Your task to perform on an android device: Open battery settings Image 0: 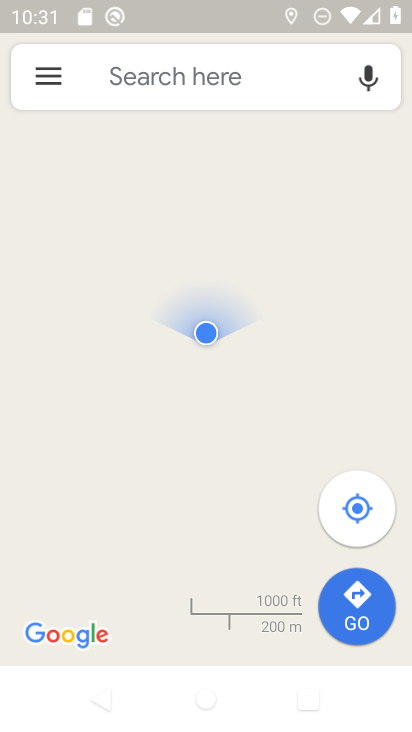
Step 0: press home button
Your task to perform on an android device: Open battery settings Image 1: 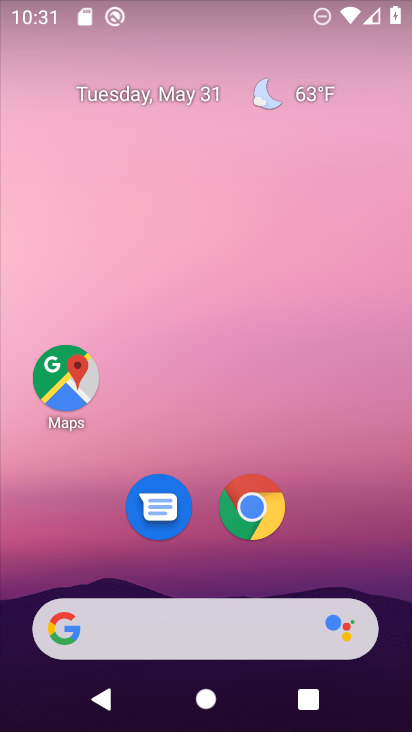
Step 1: drag from (68, 635) to (212, 45)
Your task to perform on an android device: Open battery settings Image 2: 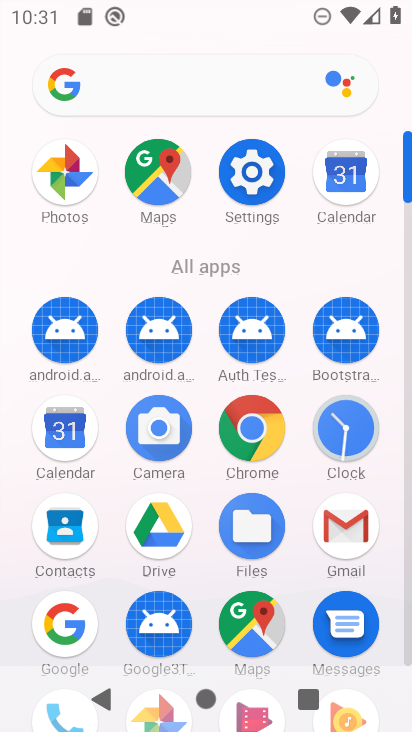
Step 2: drag from (123, 579) to (239, 255)
Your task to perform on an android device: Open battery settings Image 3: 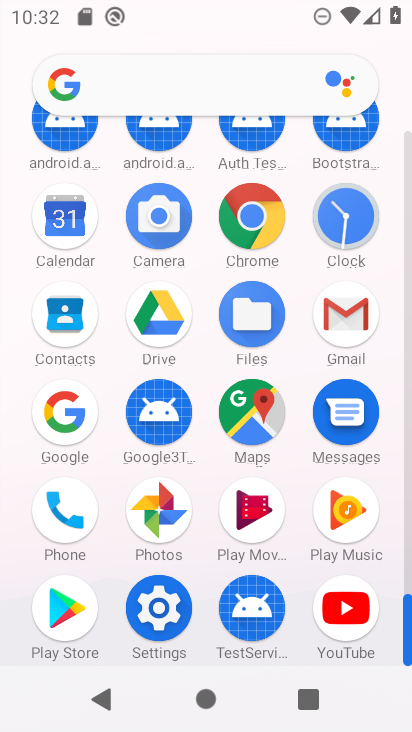
Step 3: click (155, 619)
Your task to perform on an android device: Open battery settings Image 4: 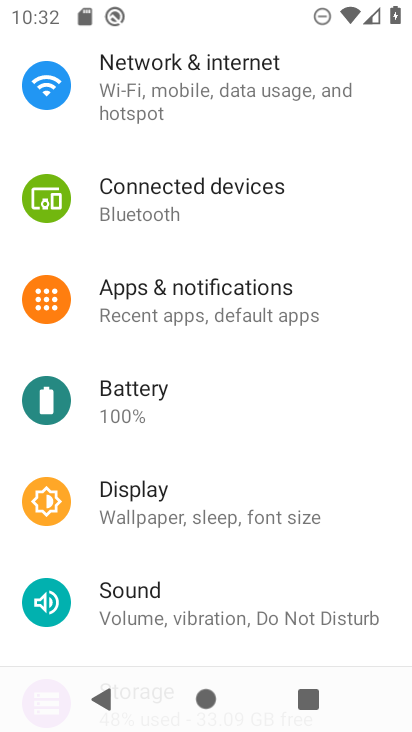
Step 4: click (194, 393)
Your task to perform on an android device: Open battery settings Image 5: 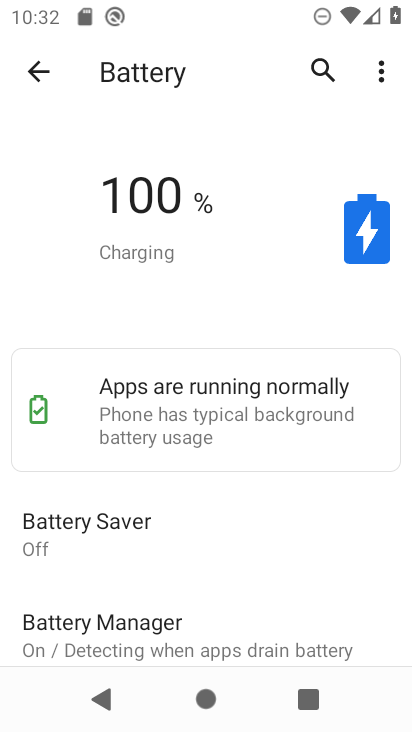
Step 5: task complete